Your task to perform on an android device: all mails in gmail Image 0: 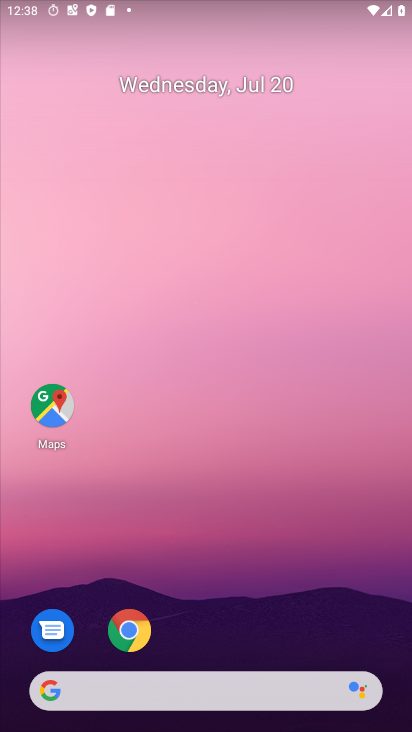
Step 0: drag from (328, 593) to (328, 226)
Your task to perform on an android device: all mails in gmail Image 1: 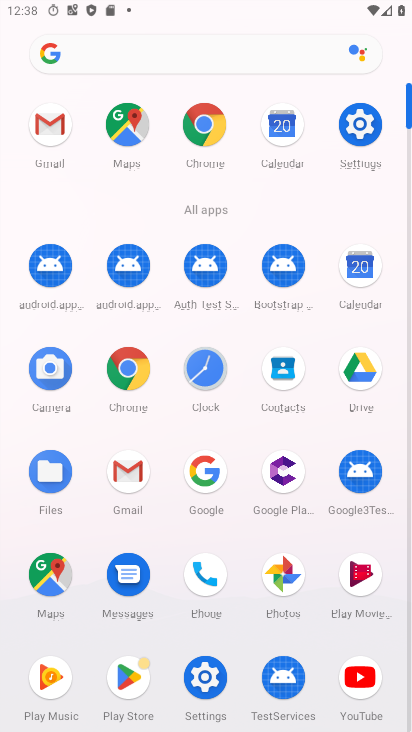
Step 1: click (51, 135)
Your task to perform on an android device: all mails in gmail Image 2: 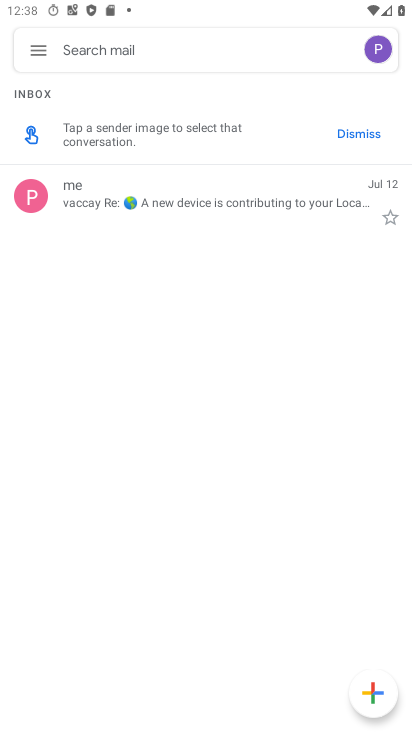
Step 2: click (35, 39)
Your task to perform on an android device: all mails in gmail Image 3: 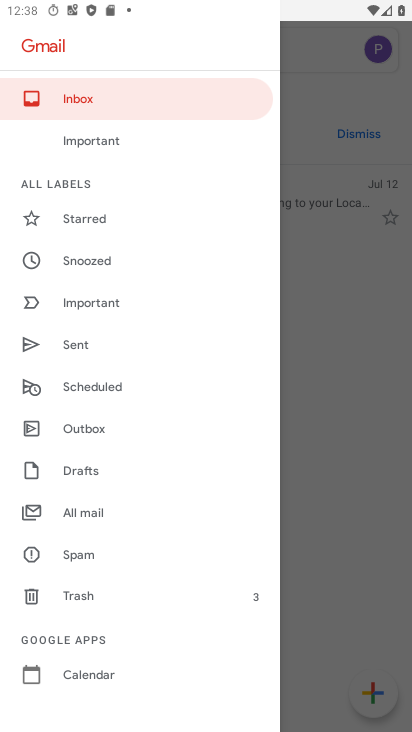
Step 3: click (96, 503)
Your task to perform on an android device: all mails in gmail Image 4: 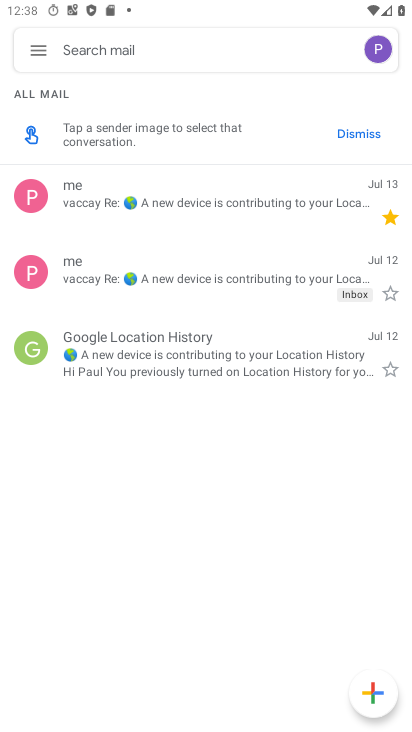
Step 4: task complete